Your task to perform on an android device: open wifi settings Image 0: 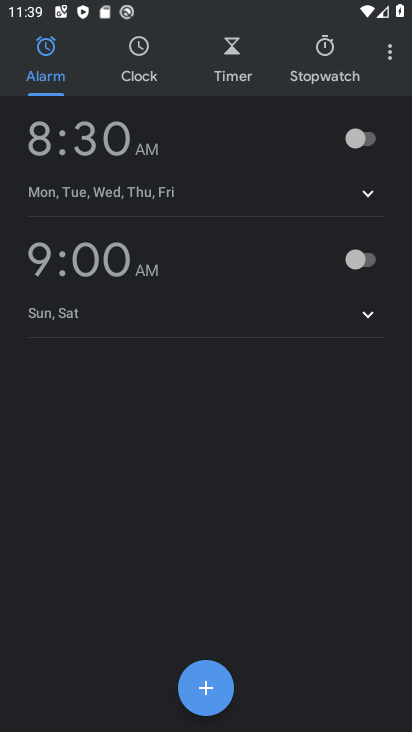
Step 0: press home button
Your task to perform on an android device: open wifi settings Image 1: 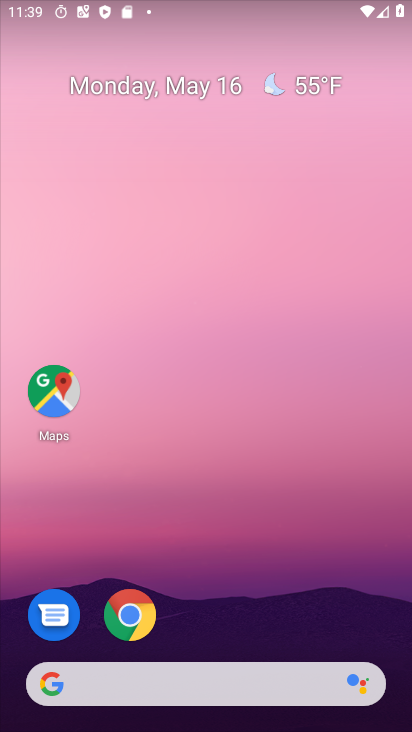
Step 1: task complete